Your task to perform on an android device: install app "YouTube Kids" Image 0: 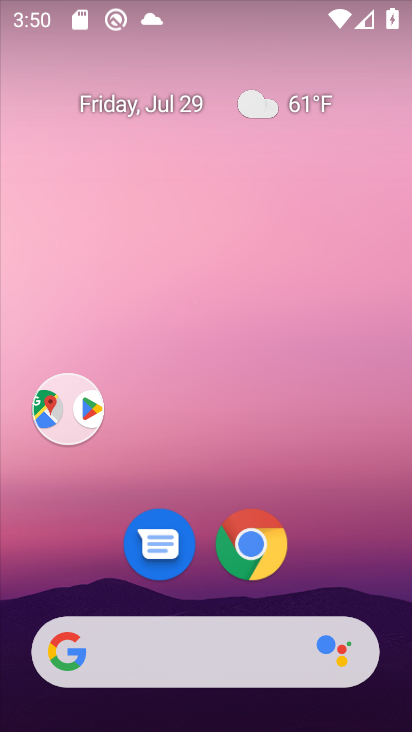
Step 0: drag from (220, 727) to (220, 248)
Your task to perform on an android device: install app "YouTube Kids" Image 1: 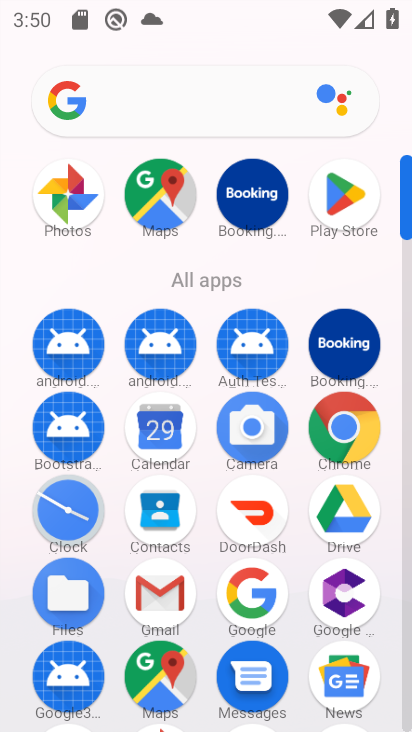
Step 1: click (342, 209)
Your task to perform on an android device: install app "YouTube Kids" Image 2: 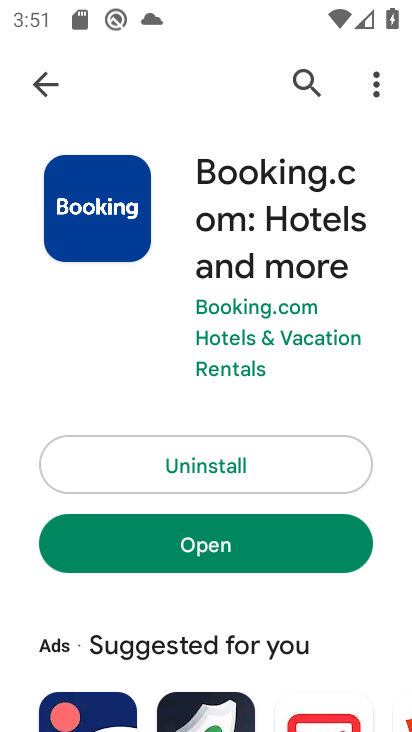
Step 2: click (303, 71)
Your task to perform on an android device: install app "YouTube Kids" Image 3: 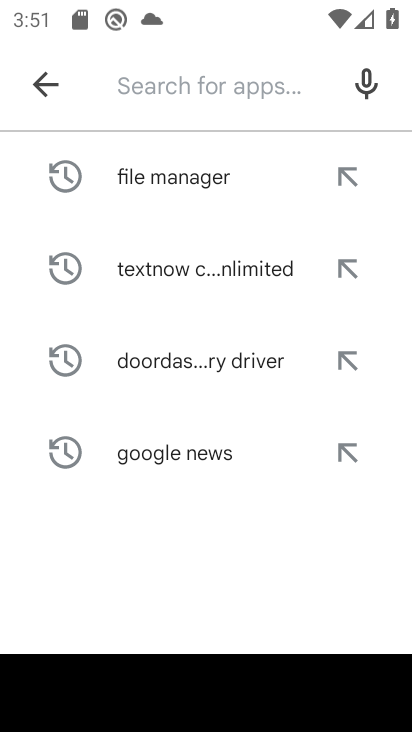
Step 3: type "ouTube Kids"
Your task to perform on an android device: install app "YouTube Kids" Image 4: 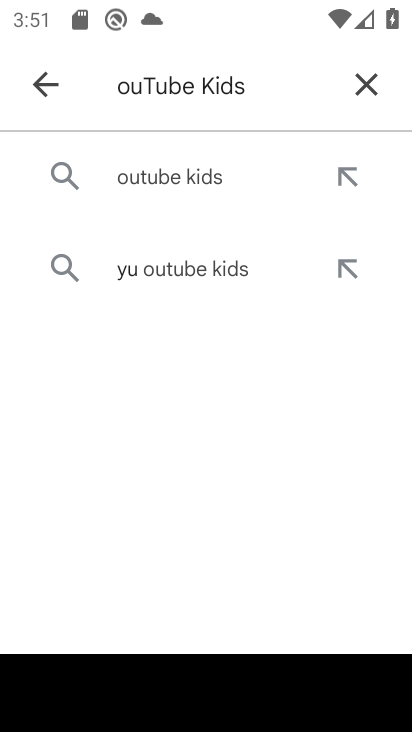
Step 4: click (178, 176)
Your task to perform on an android device: install app "YouTube Kids" Image 5: 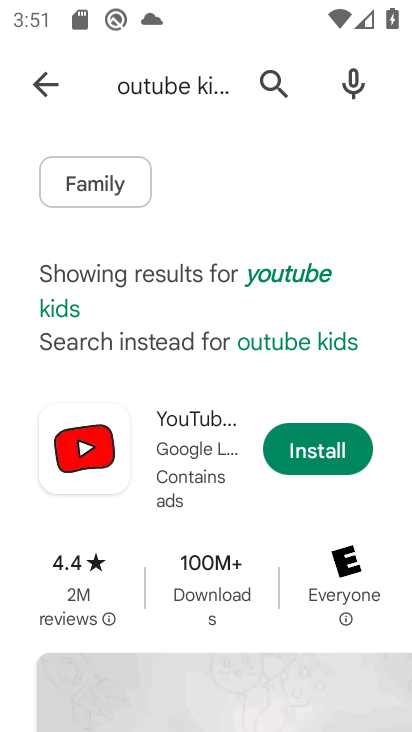
Step 5: click (301, 450)
Your task to perform on an android device: install app "YouTube Kids" Image 6: 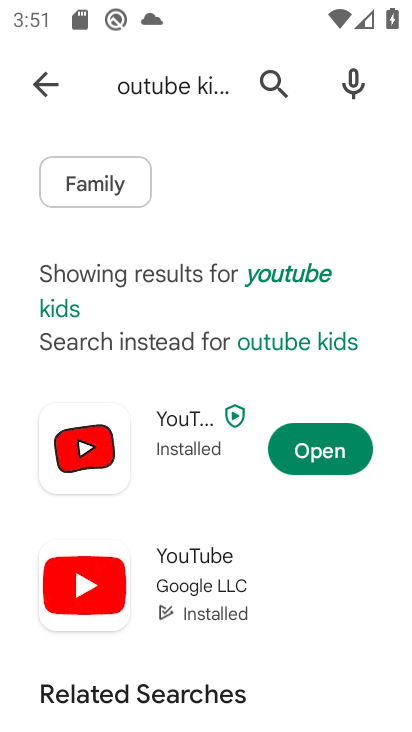
Step 6: task complete